Your task to perform on an android device: move a message to another label in the gmail app Image 0: 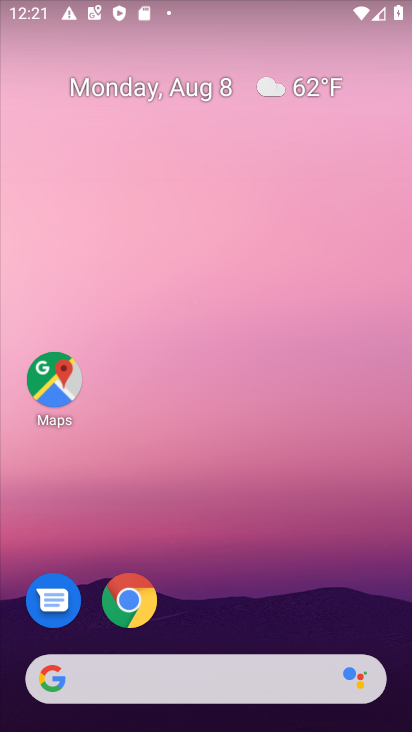
Step 0: drag from (229, 606) to (188, 151)
Your task to perform on an android device: move a message to another label in the gmail app Image 1: 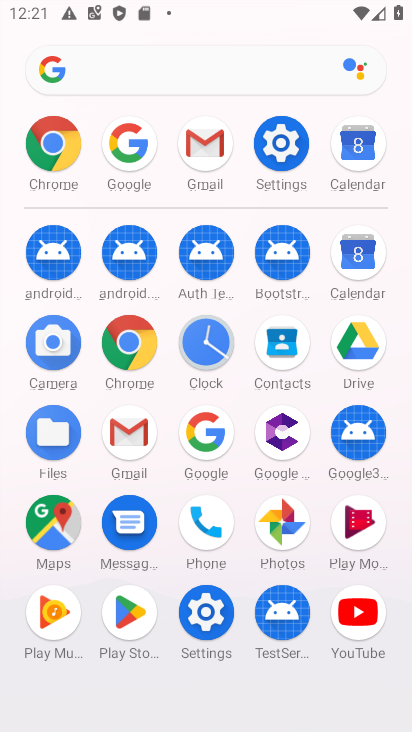
Step 1: click (188, 138)
Your task to perform on an android device: move a message to another label in the gmail app Image 2: 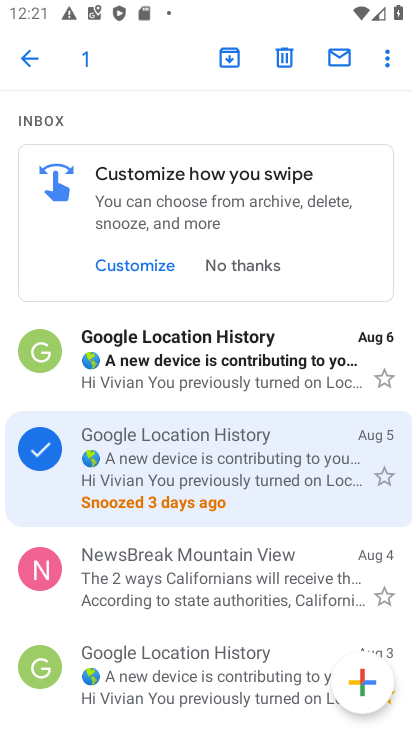
Step 2: click (384, 56)
Your task to perform on an android device: move a message to another label in the gmail app Image 3: 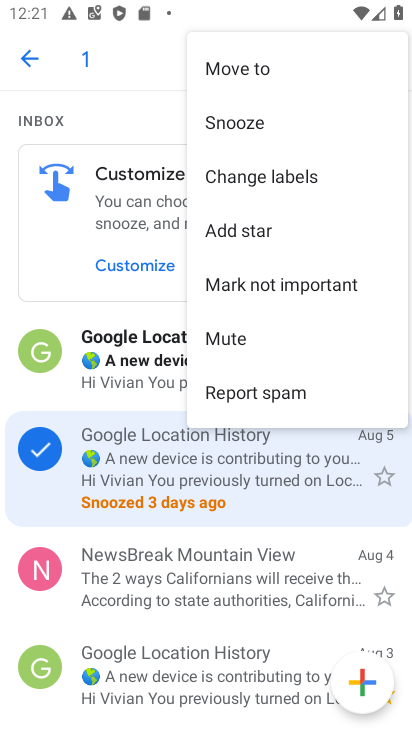
Step 3: click (248, 81)
Your task to perform on an android device: move a message to another label in the gmail app Image 4: 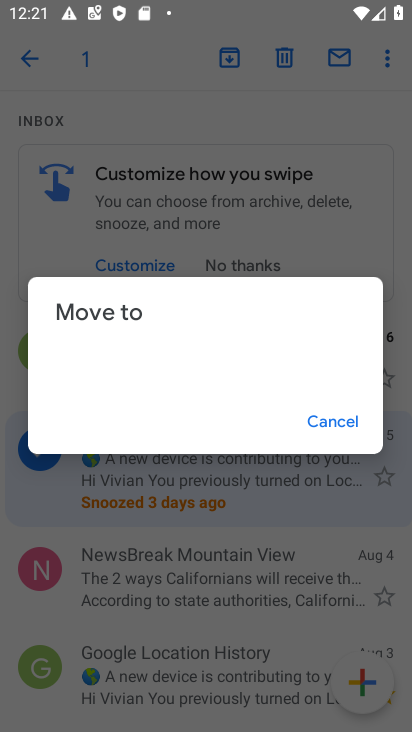
Step 4: click (324, 415)
Your task to perform on an android device: move a message to another label in the gmail app Image 5: 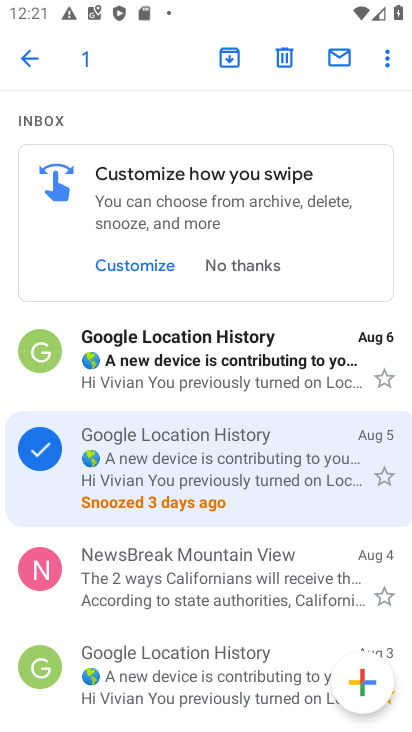
Step 5: task complete